Your task to perform on an android device: turn on the 24-hour format for clock Image 0: 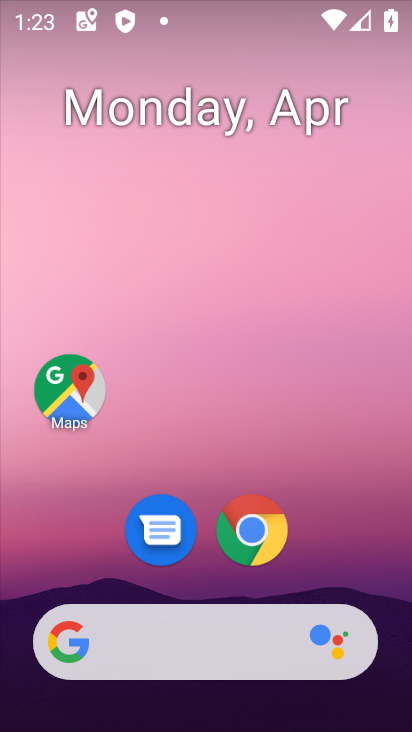
Step 0: click (308, 106)
Your task to perform on an android device: turn on the 24-hour format for clock Image 1: 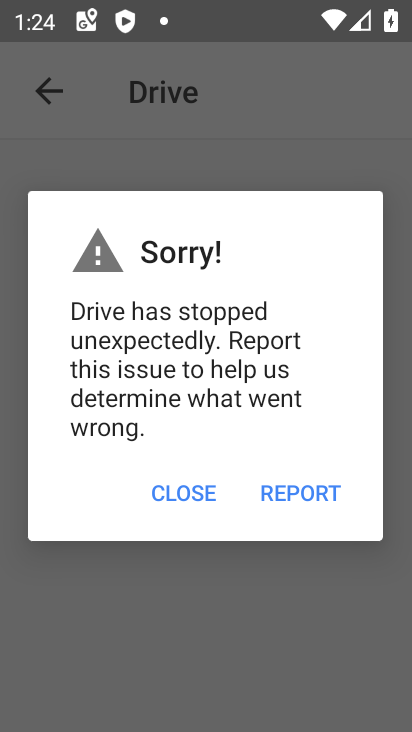
Step 1: press home button
Your task to perform on an android device: turn on the 24-hour format for clock Image 2: 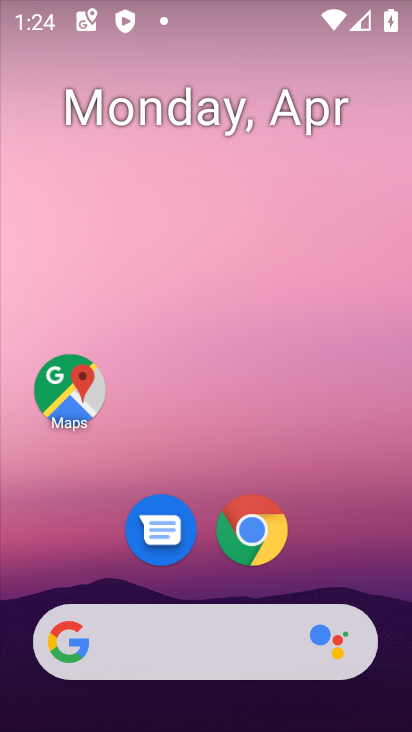
Step 2: drag from (374, 583) to (198, 0)
Your task to perform on an android device: turn on the 24-hour format for clock Image 3: 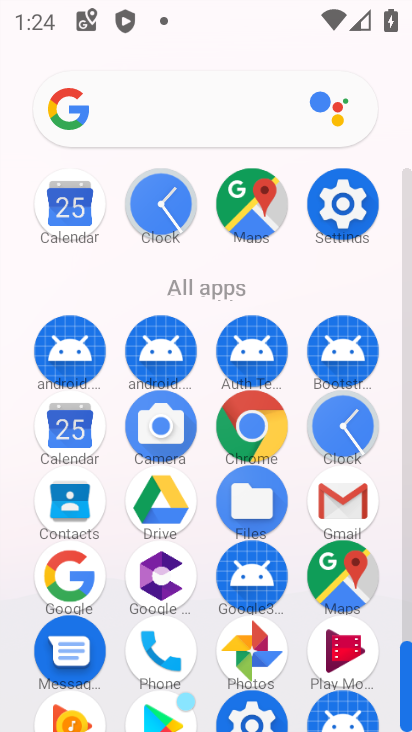
Step 3: click (346, 429)
Your task to perform on an android device: turn on the 24-hour format for clock Image 4: 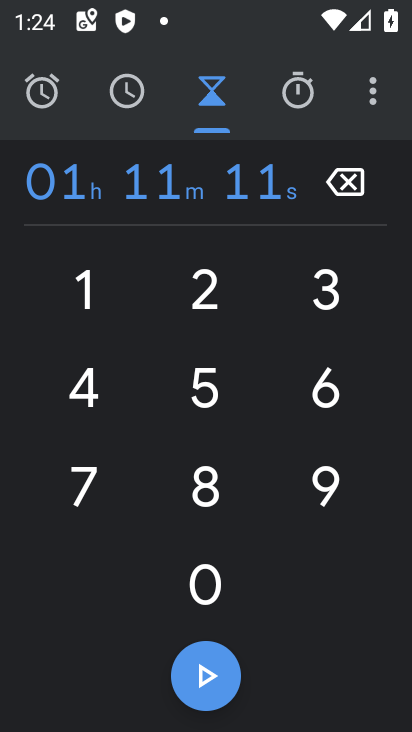
Step 4: click (372, 90)
Your task to perform on an android device: turn on the 24-hour format for clock Image 5: 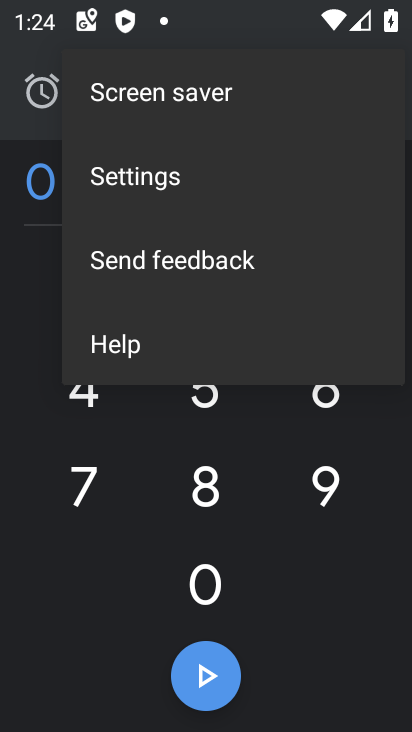
Step 5: click (138, 170)
Your task to perform on an android device: turn on the 24-hour format for clock Image 6: 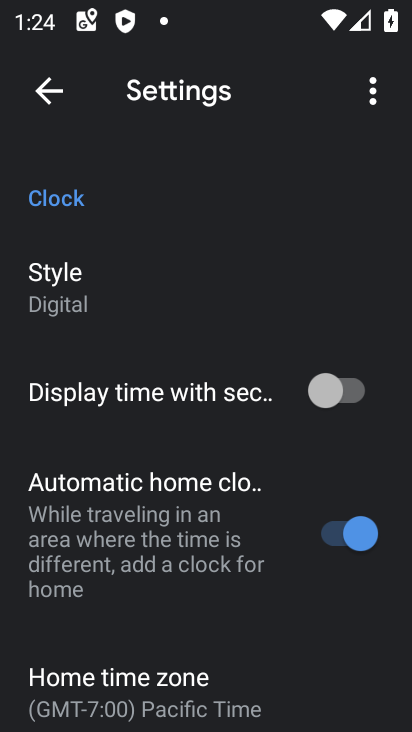
Step 6: drag from (186, 599) to (144, 308)
Your task to perform on an android device: turn on the 24-hour format for clock Image 7: 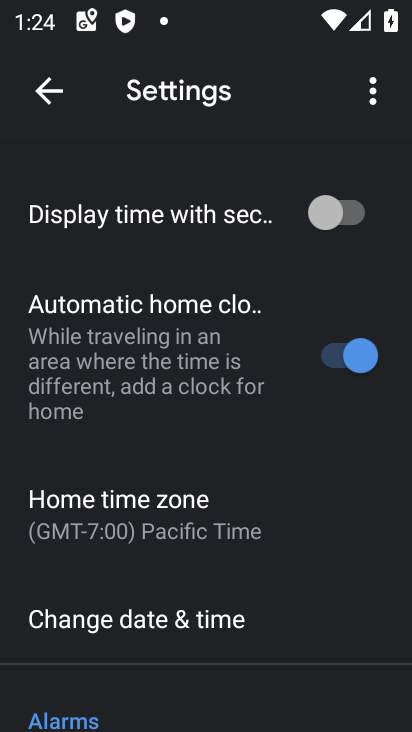
Step 7: click (159, 623)
Your task to perform on an android device: turn on the 24-hour format for clock Image 8: 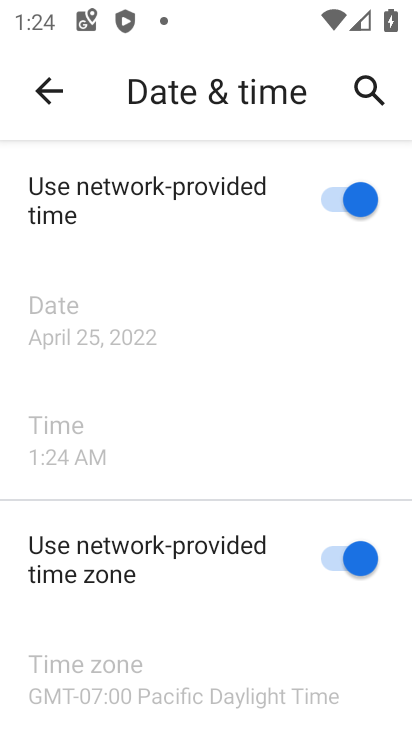
Step 8: drag from (205, 622) to (154, 179)
Your task to perform on an android device: turn on the 24-hour format for clock Image 9: 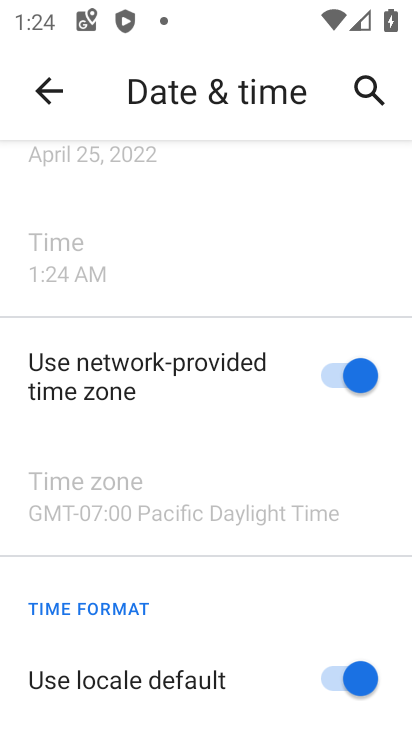
Step 9: drag from (230, 599) to (176, 292)
Your task to perform on an android device: turn on the 24-hour format for clock Image 10: 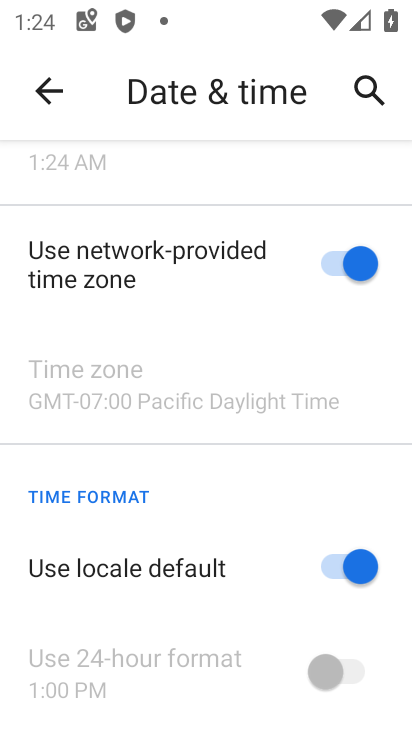
Step 10: click (345, 559)
Your task to perform on an android device: turn on the 24-hour format for clock Image 11: 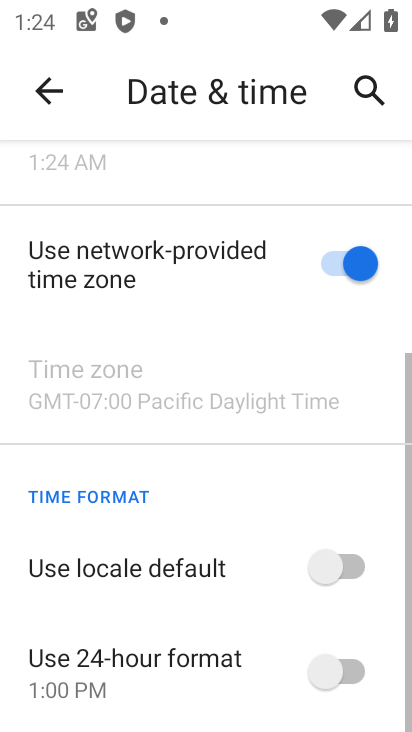
Step 11: click (326, 672)
Your task to perform on an android device: turn on the 24-hour format for clock Image 12: 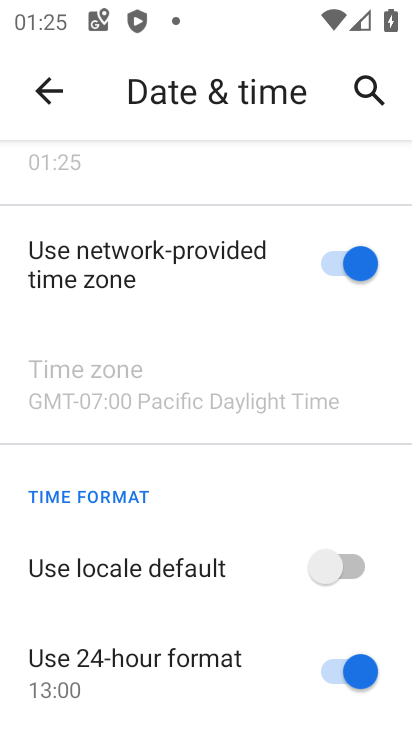
Step 12: task complete